Your task to perform on an android device: turn on javascript in the chrome app Image 0: 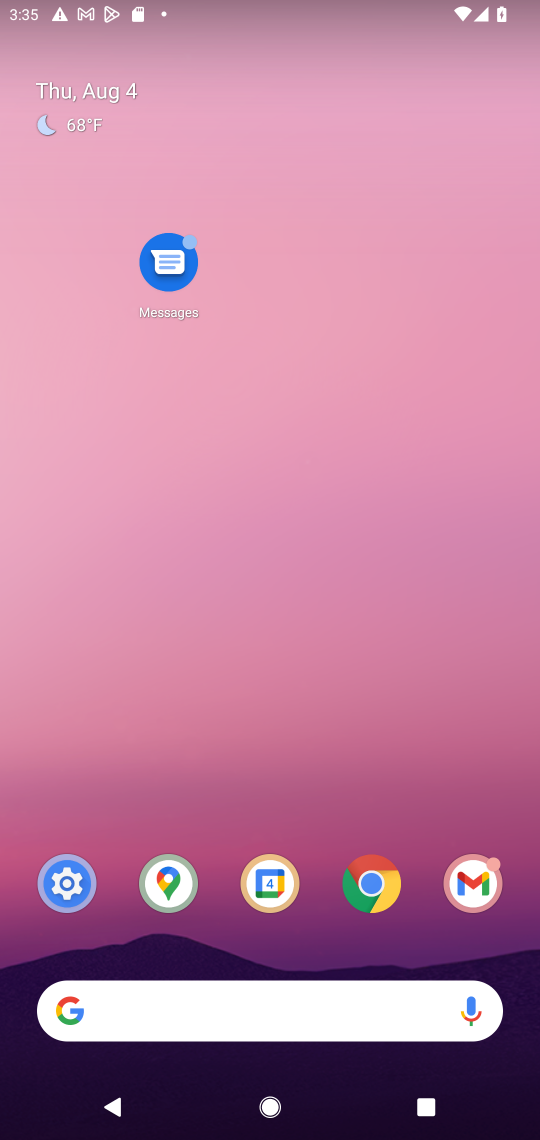
Step 0: click (371, 877)
Your task to perform on an android device: turn on javascript in the chrome app Image 1: 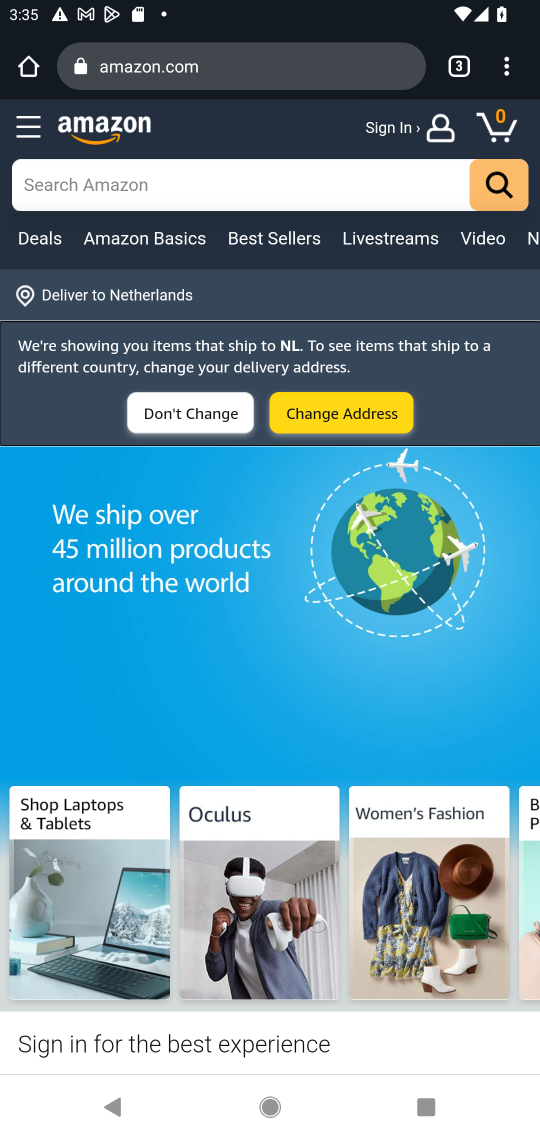
Step 1: click (504, 74)
Your task to perform on an android device: turn on javascript in the chrome app Image 2: 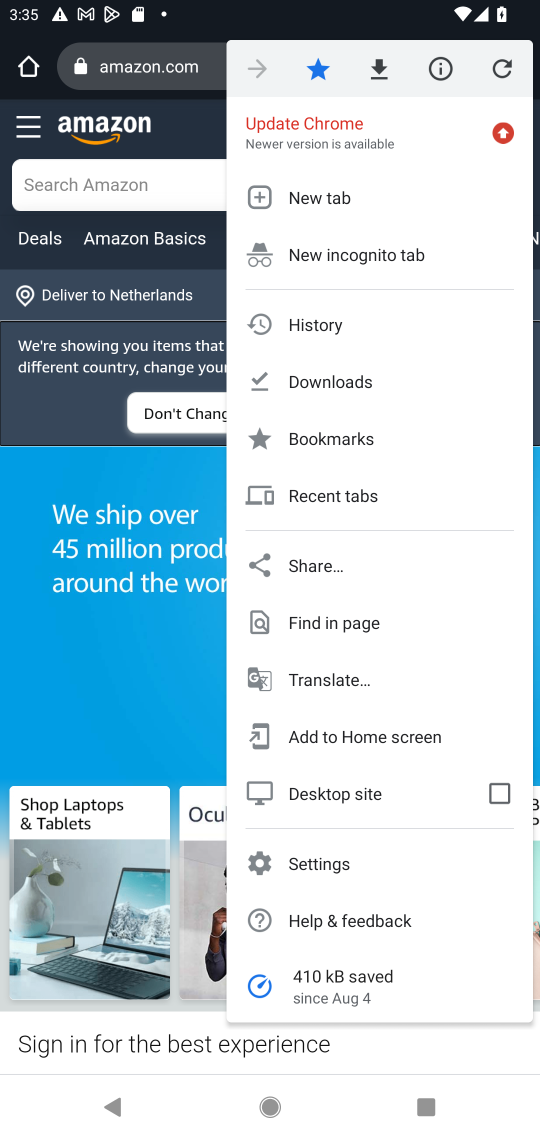
Step 2: click (322, 862)
Your task to perform on an android device: turn on javascript in the chrome app Image 3: 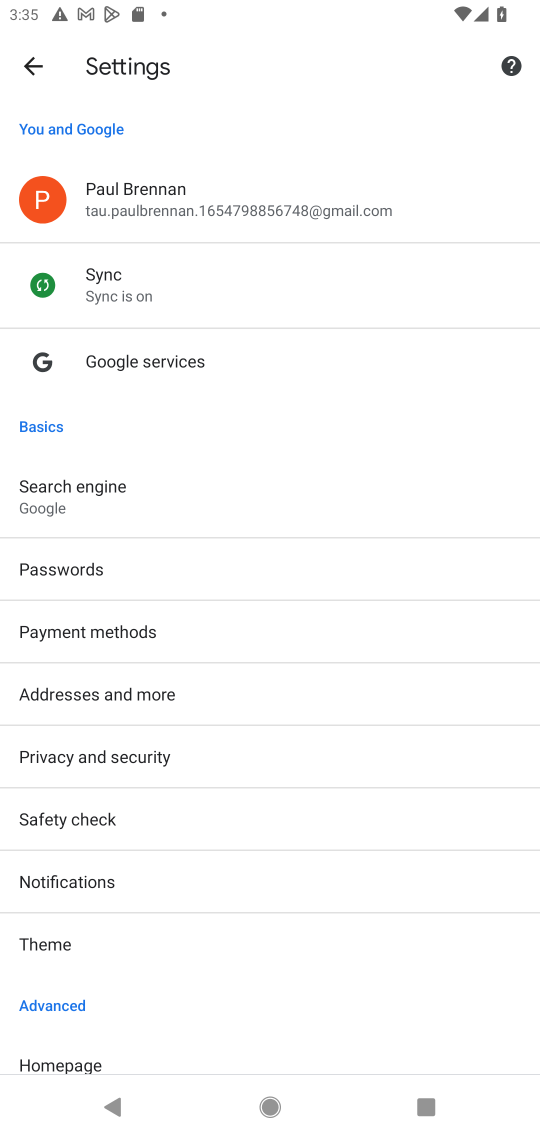
Step 3: drag from (114, 1025) to (181, 532)
Your task to perform on an android device: turn on javascript in the chrome app Image 4: 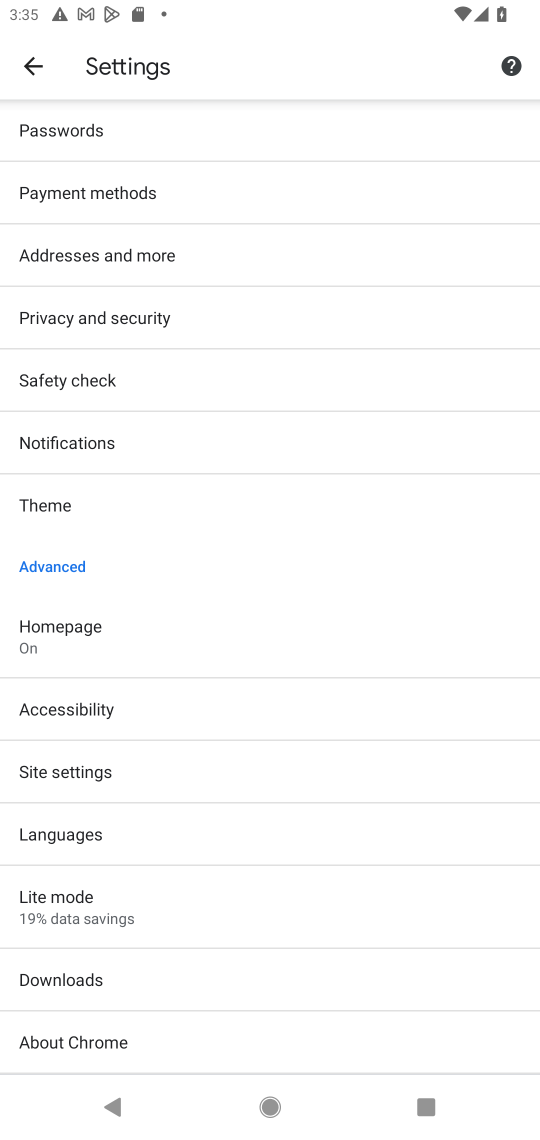
Step 4: click (67, 773)
Your task to perform on an android device: turn on javascript in the chrome app Image 5: 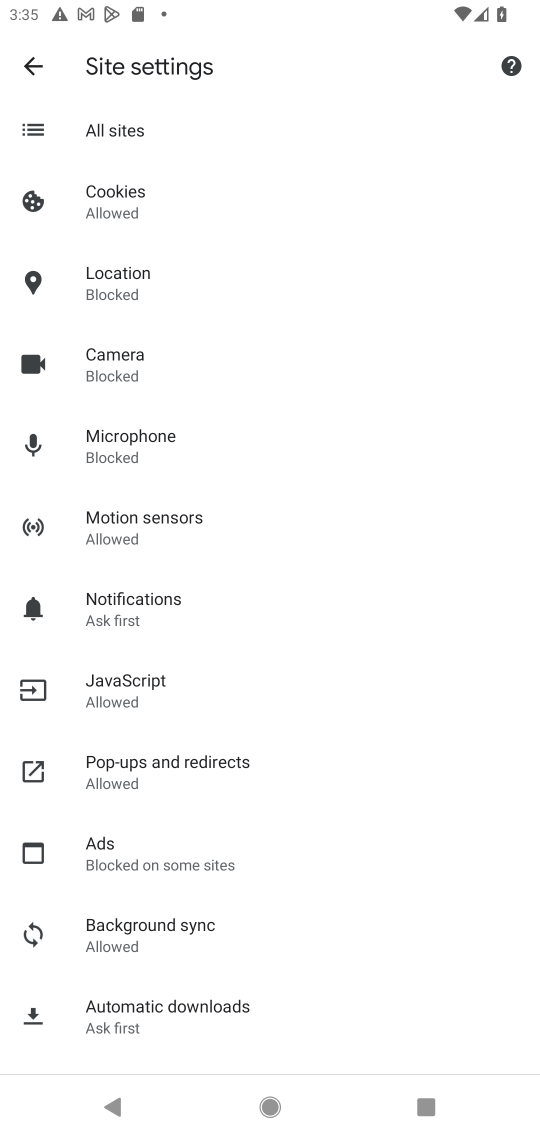
Step 5: click (136, 697)
Your task to perform on an android device: turn on javascript in the chrome app Image 6: 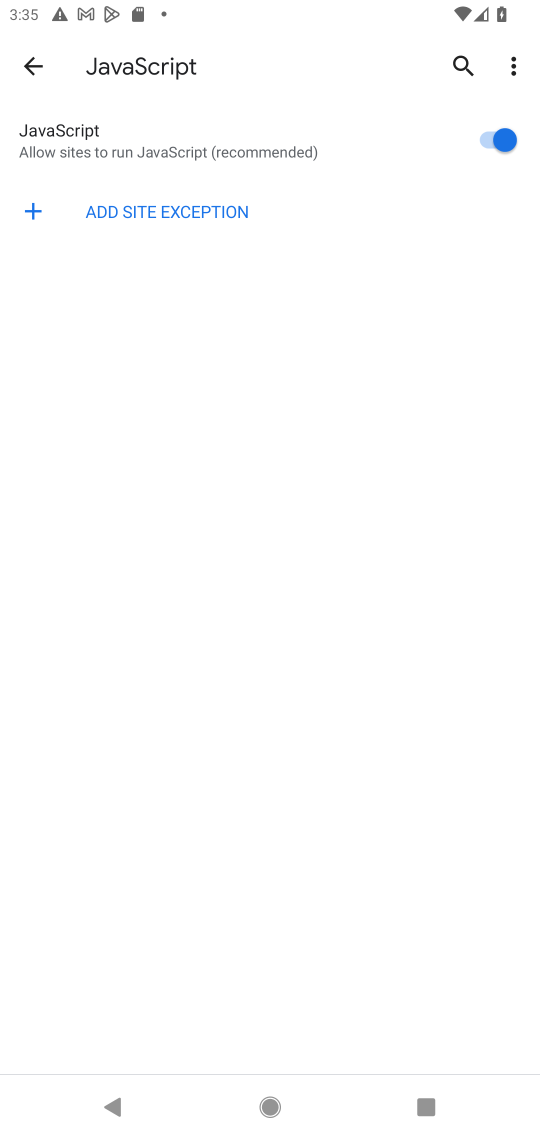
Step 6: task complete